Your task to perform on an android device: Set the phone to "Do not disturb". Image 0: 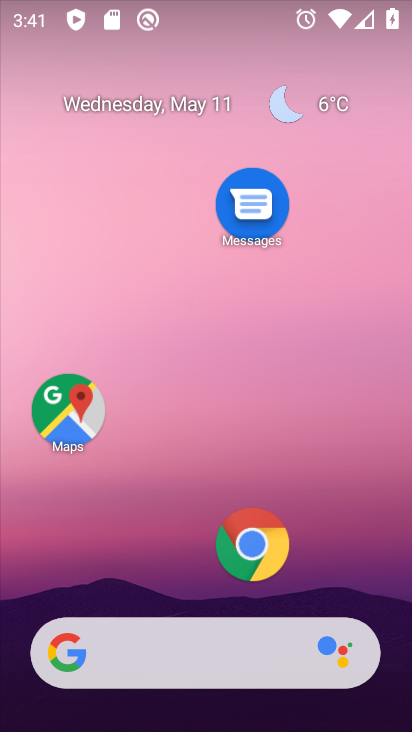
Step 0: drag from (214, 12) to (173, 604)
Your task to perform on an android device: Set the phone to "Do not disturb". Image 1: 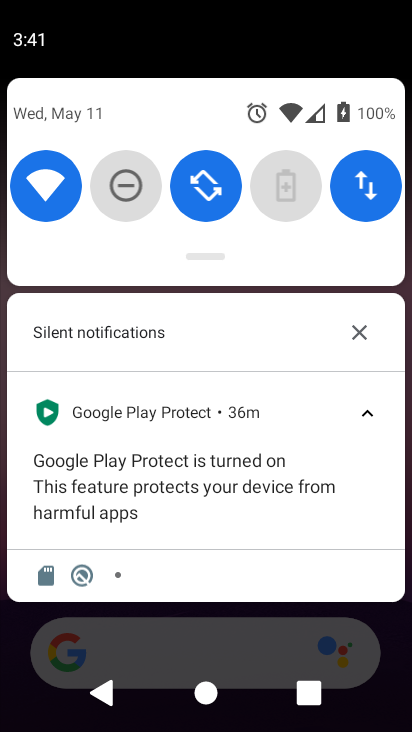
Step 1: click (132, 187)
Your task to perform on an android device: Set the phone to "Do not disturb". Image 2: 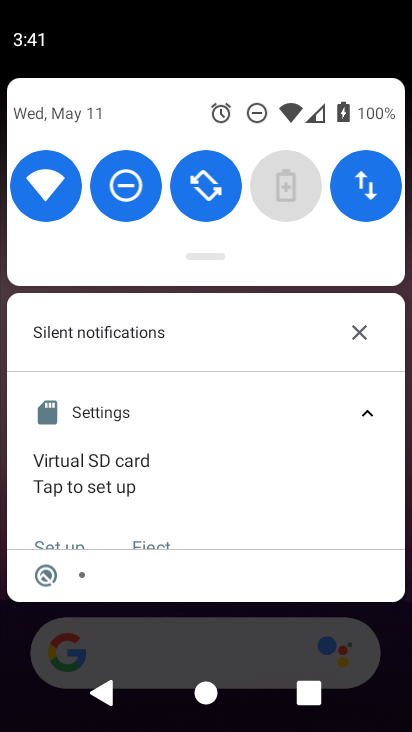
Step 2: task complete